Your task to perform on an android device: Go to ESPN.com Image 0: 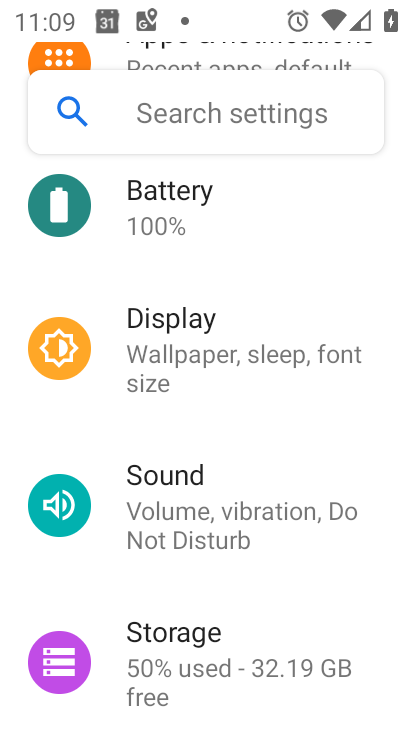
Step 0: press home button
Your task to perform on an android device: Go to ESPN.com Image 1: 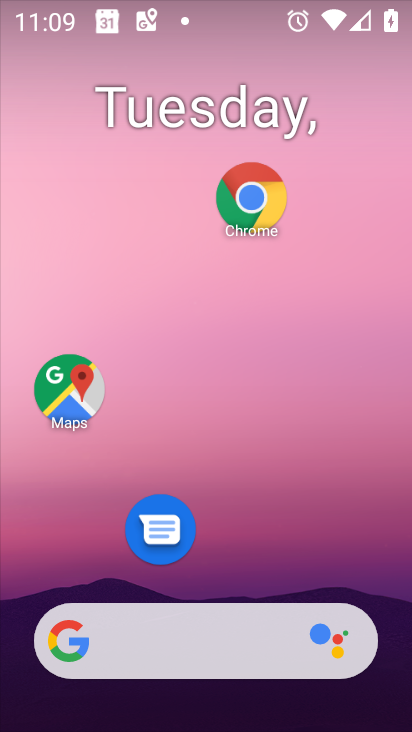
Step 1: click (260, 224)
Your task to perform on an android device: Go to ESPN.com Image 2: 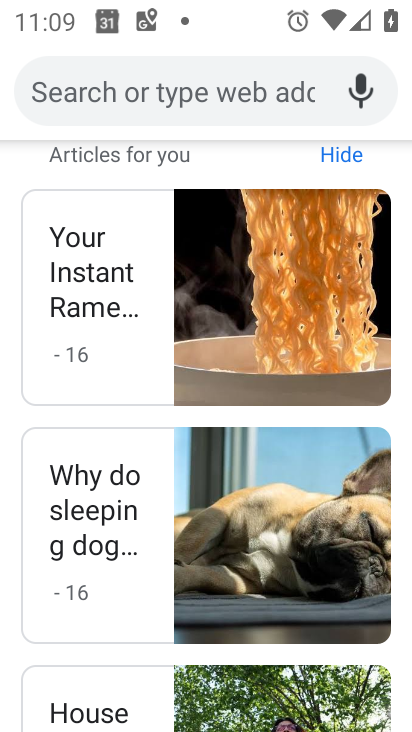
Step 2: click (214, 115)
Your task to perform on an android device: Go to ESPN.com Image 3: 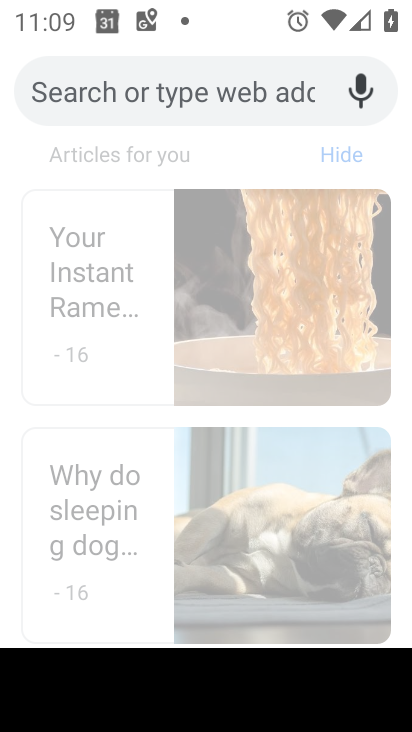
Step 3: type "espn"
Your task to perform on an android device: Go to ESPN.com Image 4: 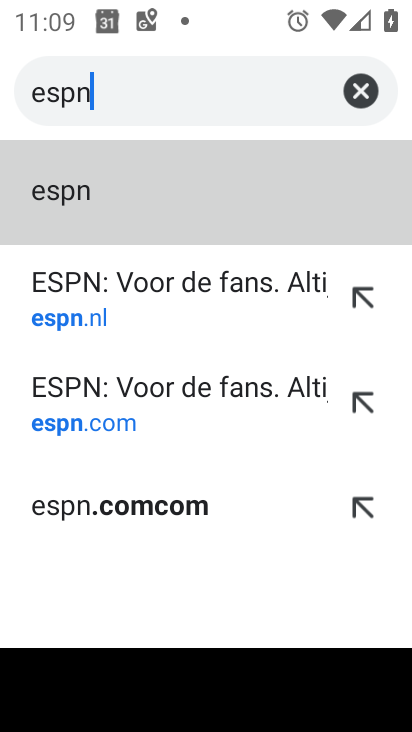
Step 4: click (123, 317)
Your task to perform on an android device: Go to ESPN.com Image 5: 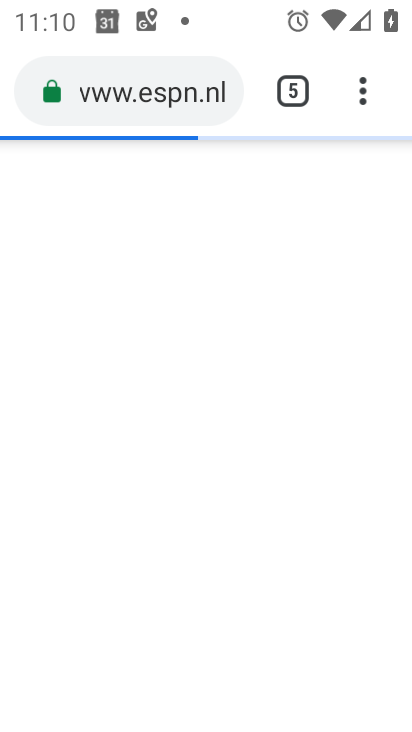
Step 5: task complete